Your task to perform on an android device: Go to eBay Image 0: 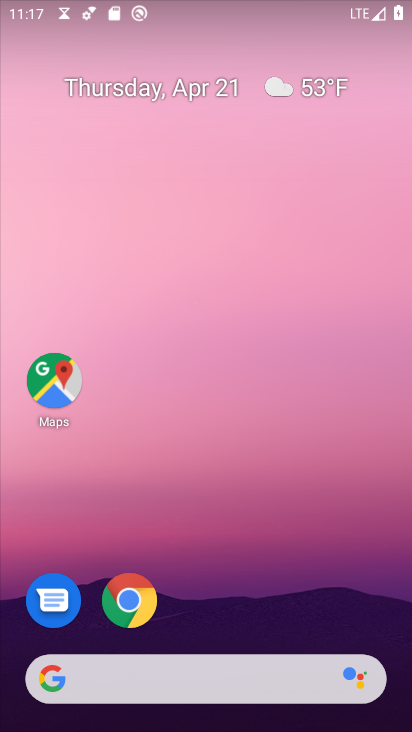
Step 0: click (138, 601)
Your task to perform on an android device: Go to eBay Image 1: 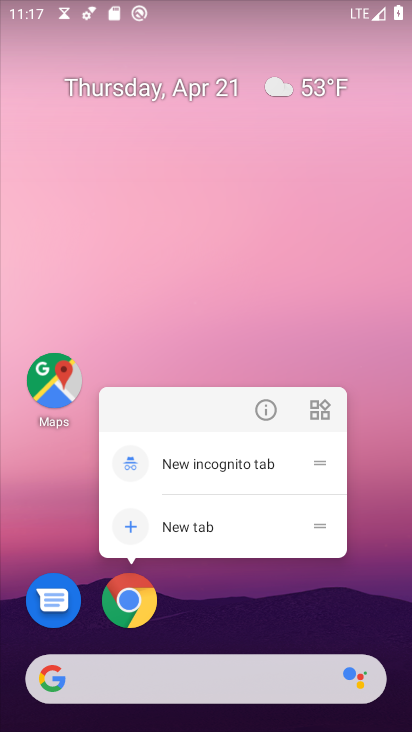
Step 1: click (135, 603)
Your task to perform on an android device: Go to eBay Image 2: 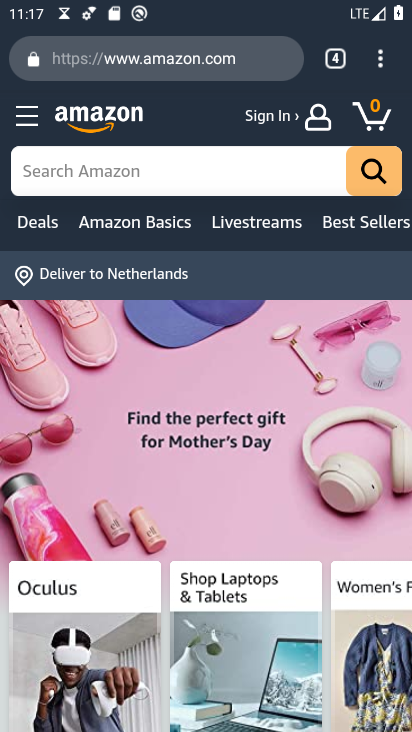
Step 2: click (332, 53)
Your task to perform on an android device: Go to eBay Image 3: 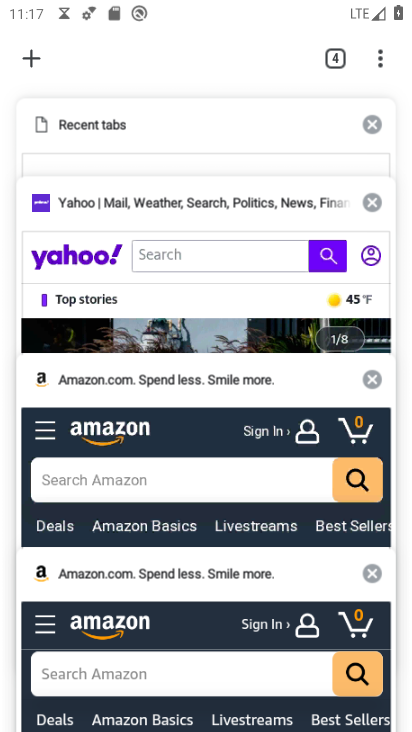
Step 3: click (32, 60)
Your task to perform on an android device: Go to eBay Image 4: 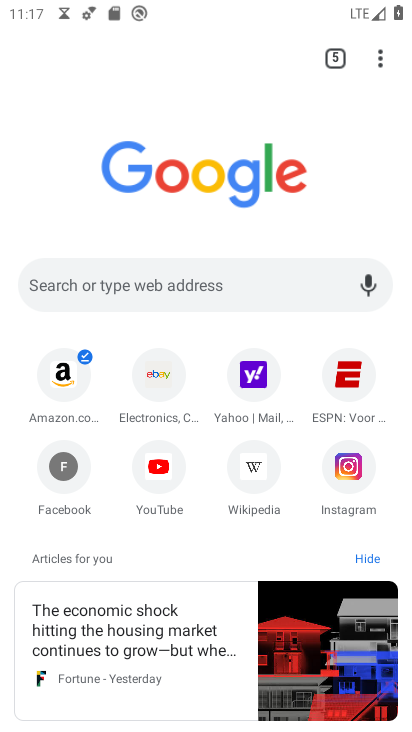
Step 4: click (179, 281)
Your task to perform on an android device: Go to eBay Image 5: 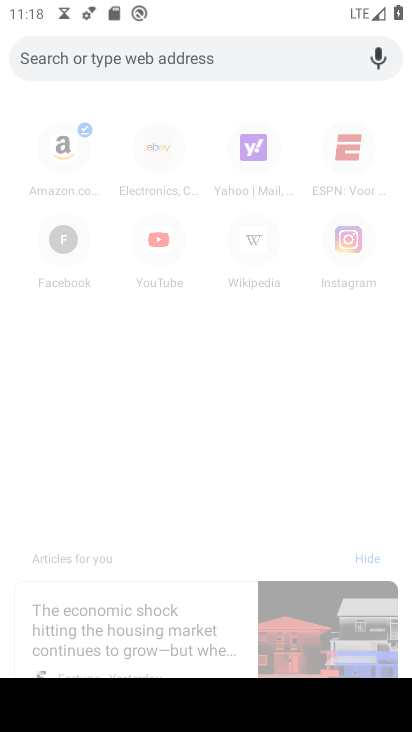
Step 5: type "eBay"
Your task to perform on an android device: Go to eBay Image 6: 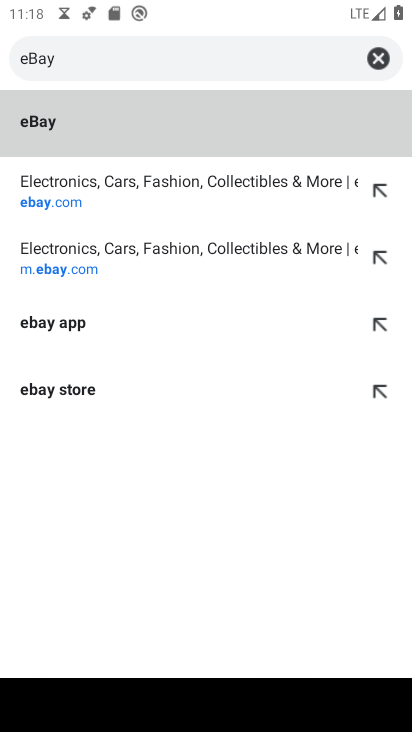
Step 6: click (79, 132)
Your task to perform on an android device: Go to eBay Image 7: 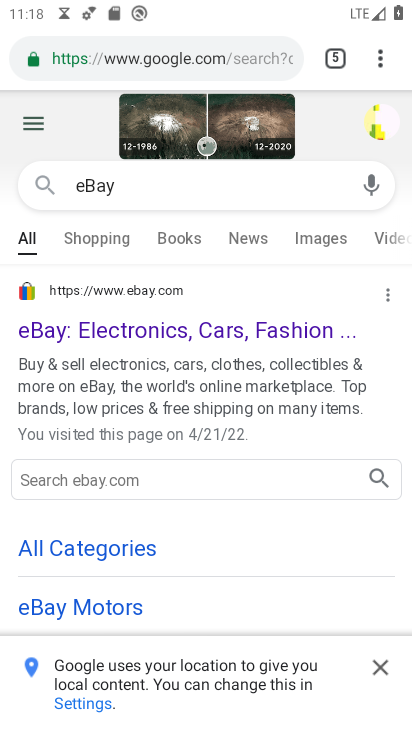
Step 7: task complete